Your task to perform on an android device: turn pop-ups on in chrome Image 0: 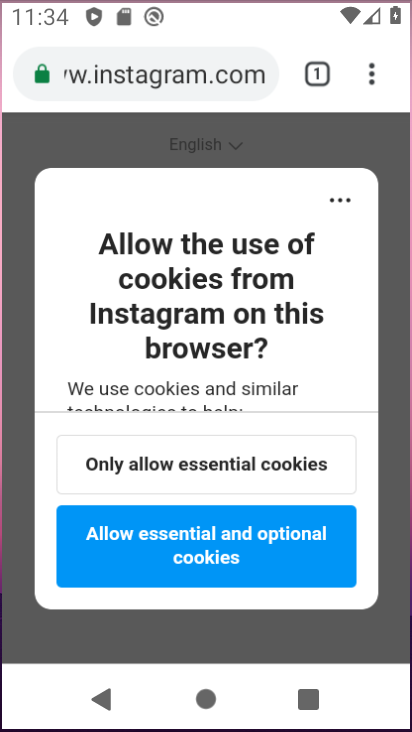
Step 0: drag from (277, 534) to (196, 281)
Your task to perform on an android device: turn pop-ups on in chrome Image 1: 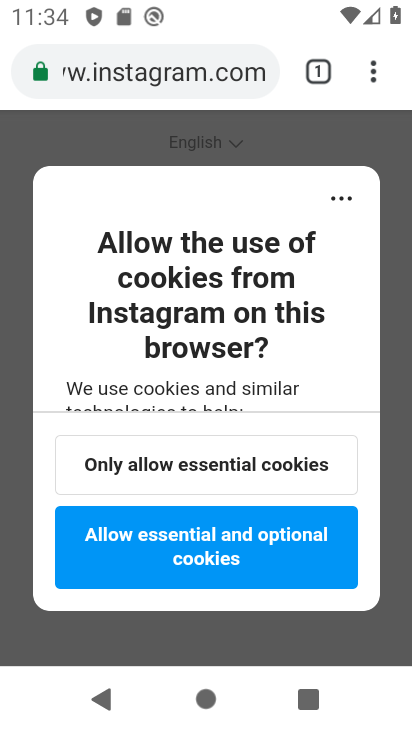
Step 1: press home button
Your task to perform on an android device: turn pop-ups on in chrome Image 2: 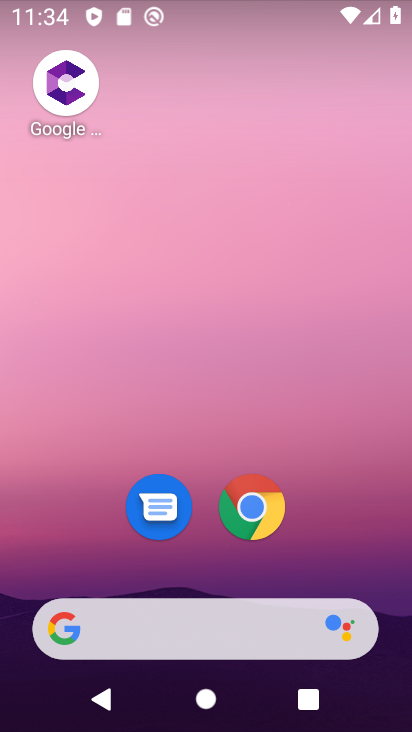
Step 2: click (248, 521)
Your task to perform on an android device: turn pop-ups on in chrome Image 3: 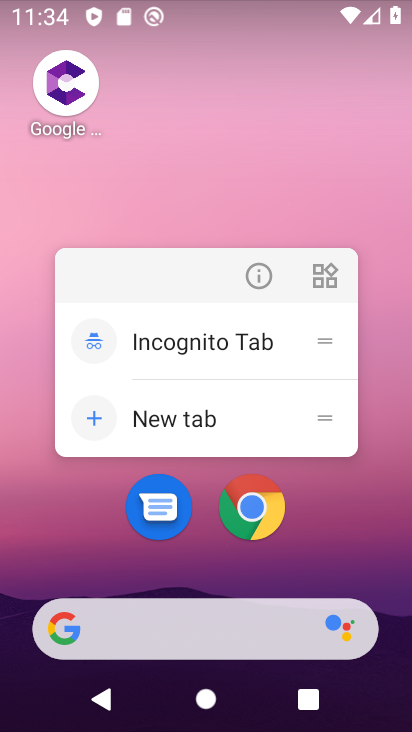
Step 3: click (254, 513)
Your task to perform on an android device: turn pop-ups on in chrome Image 4: 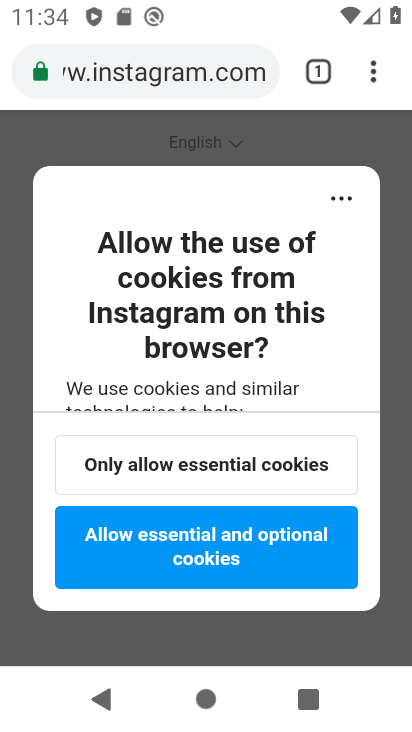
Step 4: click (377, 71)
Your task to perform on an android device: turn pop-ups on in chrome Image 5: 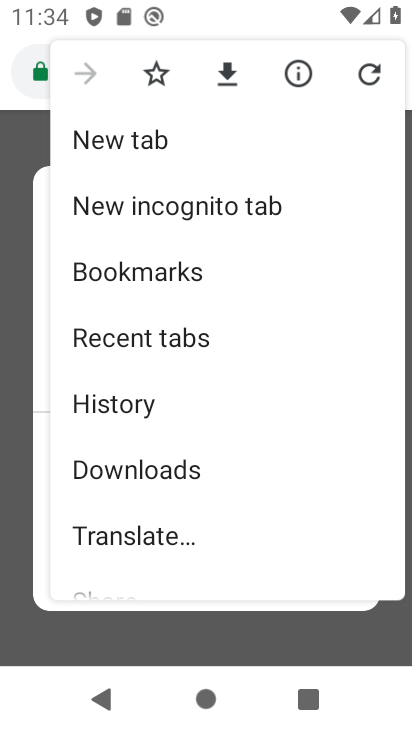
Step 5: drag from (180, 522) to (139, 138)
Your task to perform on an android device: turn pop-ups on in chrome Image 6: 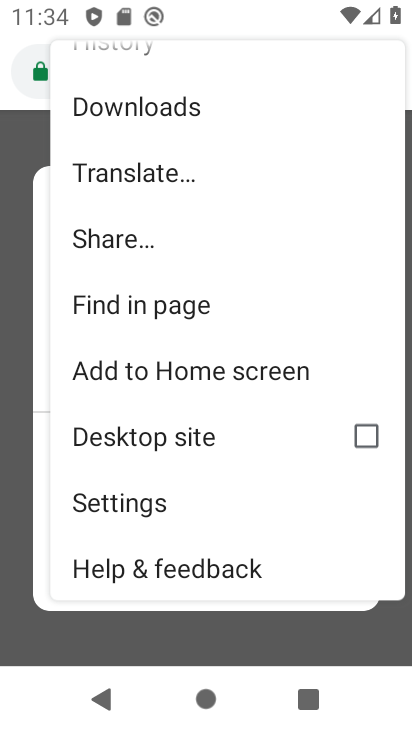
Step 6: click (168, 511)
Your task to perform on an android device: turn pop-ups on in chrome Image 7: 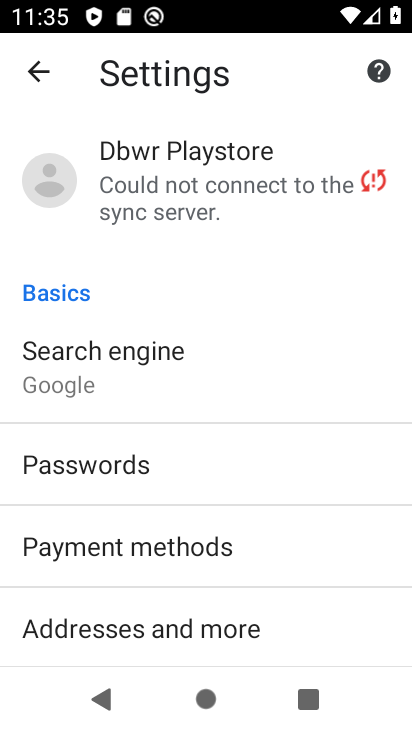
Step 7: drag from (134, 579) to (62, 161)
Your task to perform on an android device: turn pop-ups on in chrome Image 8: 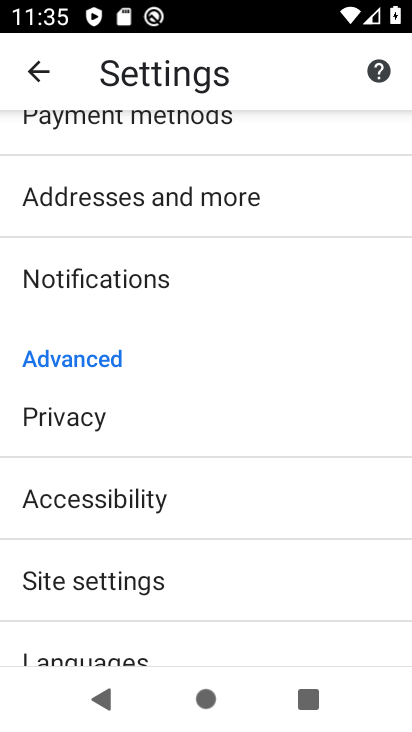
Step 8: drag from (186, 549) to (148, 303)
Your task to perform on an android device: turn pop-ups on in chrome Image 9: 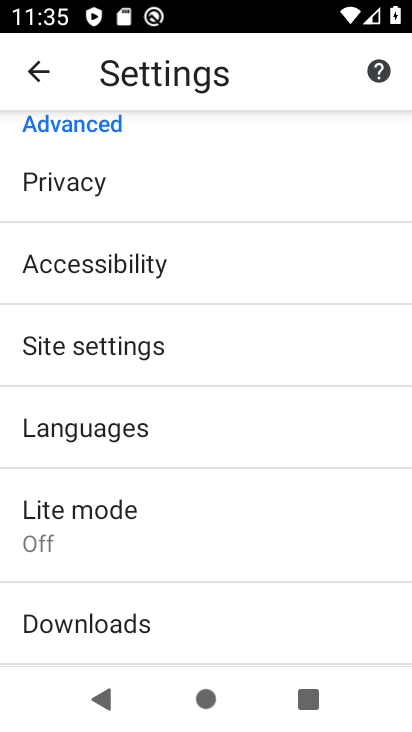
Step 9: click (119, 355)
Your task to perform on an android device: turn pop-ups on in chrome Image 10: 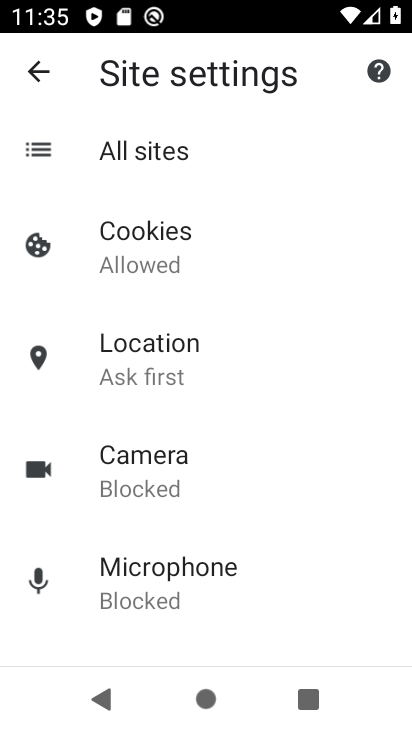
Step 10: drag from (166, 588) to (157, 214)
Your task to perform on an android device: turn pop-ups on in chrome Image 11: 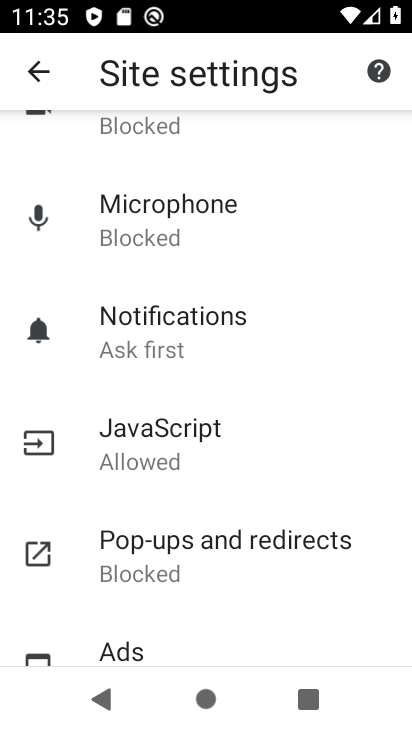
Step 11: click (287, 545)
Your task to perform on an android device: turn pop-ups on in chrome Image 12: 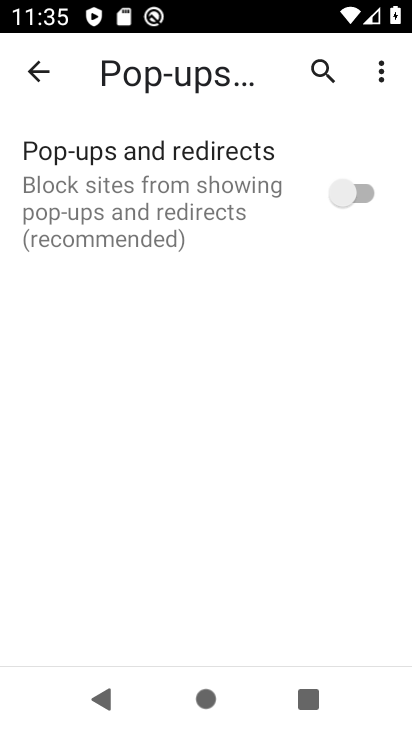
Step 12: click (363, 208)
Your task to perform on an android device: turn pop-ups on in chrome Image 13: 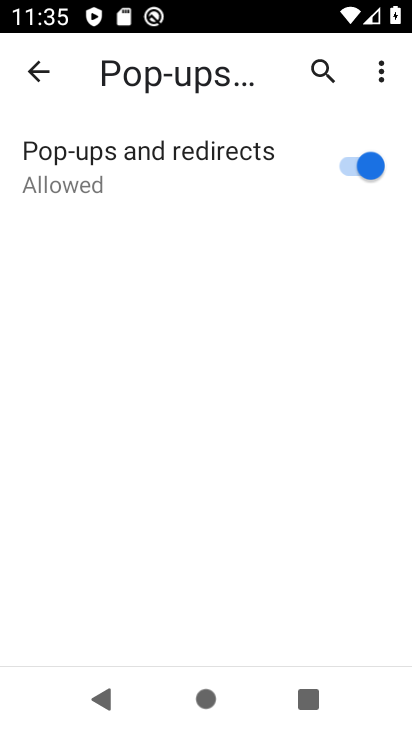
Step 13: task complete